Your task to perform on an android device: turn off sleep mode Image 0: 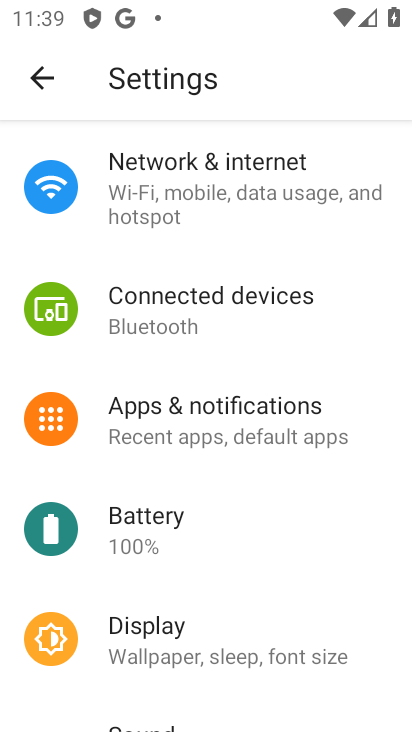
Step 0: press home button
Your task to perform on an android device: turn off sleep mode Image 1: 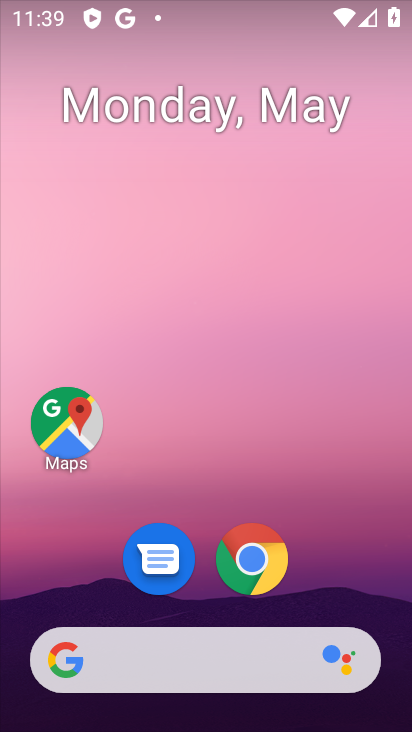
Step 1: drag from (360, 588) to (333, 93)
Your task to perform on an android device: turn off sleep mode Image 2: 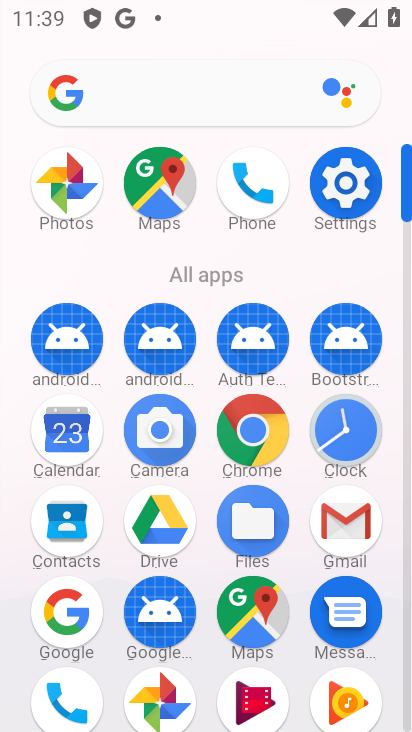
Step 2: click (334, 223)
Your task to perform on an android device: turn off sleep mode Image 3: 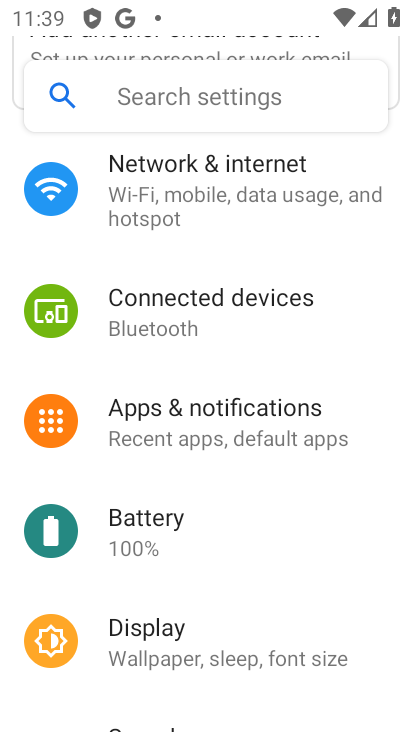
Step 3: drag from (235, 621) to (226, 317)
Your task to perform on an android device: turn off sleep mode Image 4: 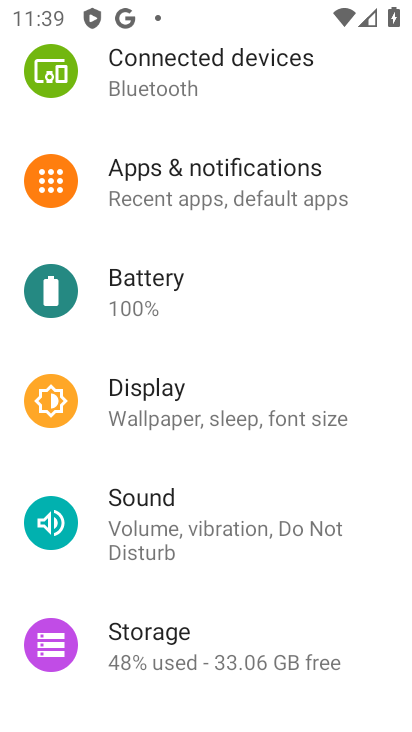
Step 4: click (278, 432)
Your task to perform on an android device: turn off sleep mode Image 5: 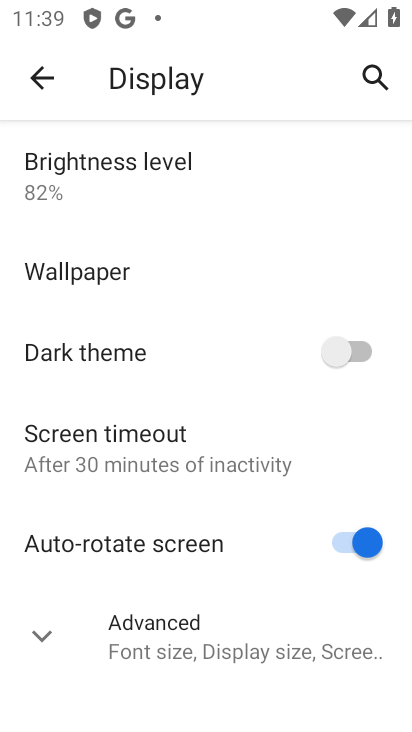
Step 5: click (222, 451)
Your task to perform on an android device: turn off sleep mode Image 6: 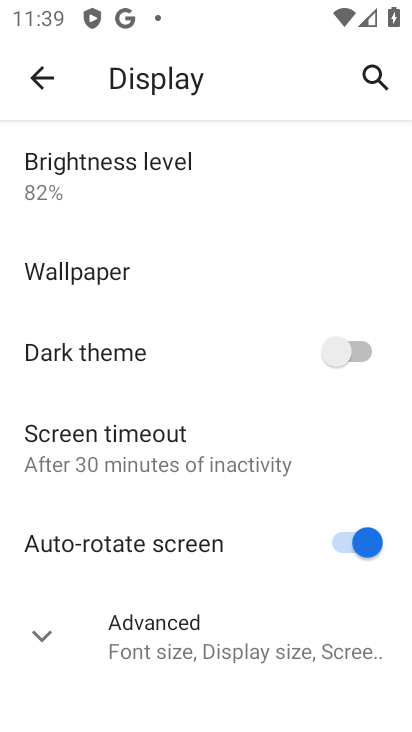
Step 6: click (222, 451)
Your task to perform on an android device: turn off sleep mode Image 7: 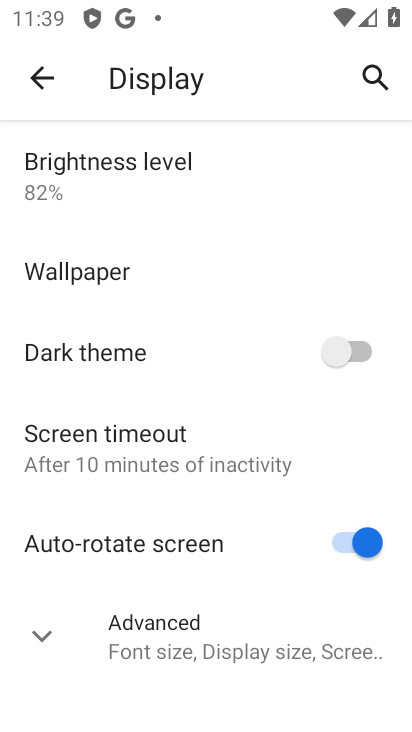
Step 7: task complete